Your task to perform on an android device: Open Android settings Image 0: 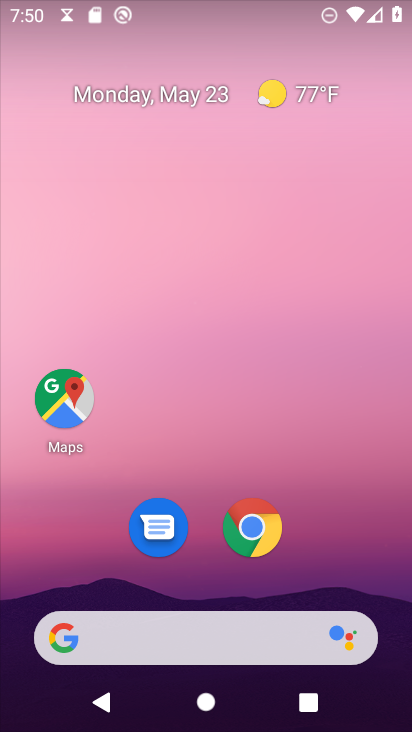
Step 0: drag from (280, 665) to (330, 236)
Your task to perform on an android device: Open Android settings Image 1: 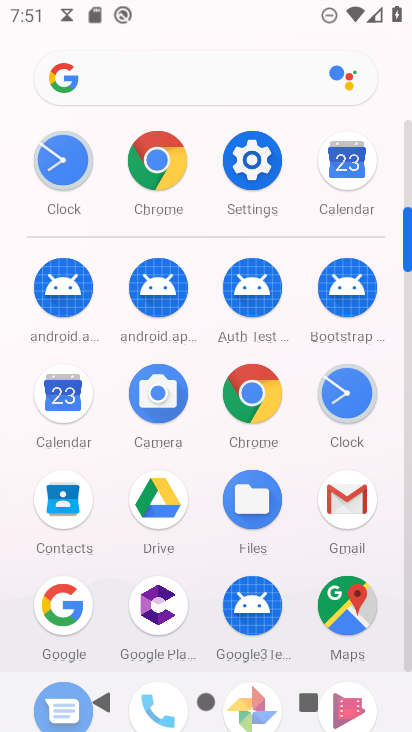
Step 1: click (259, 184)
Your task to perform on an android device: Open Android settings Image 2: 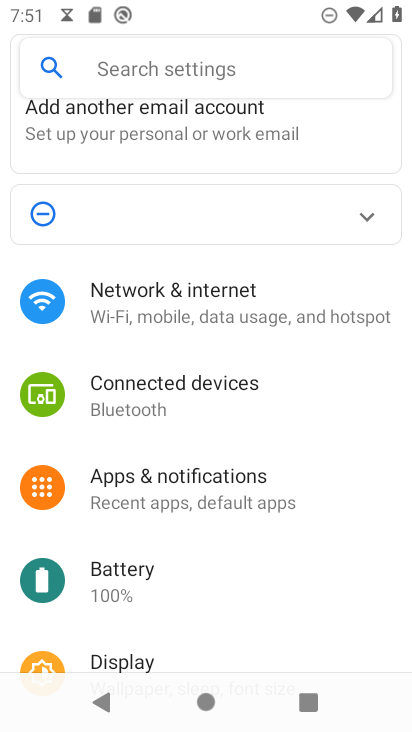
Step 2: click (160, 77)
Your task to perform on an android device: Open Android settings Image 3: 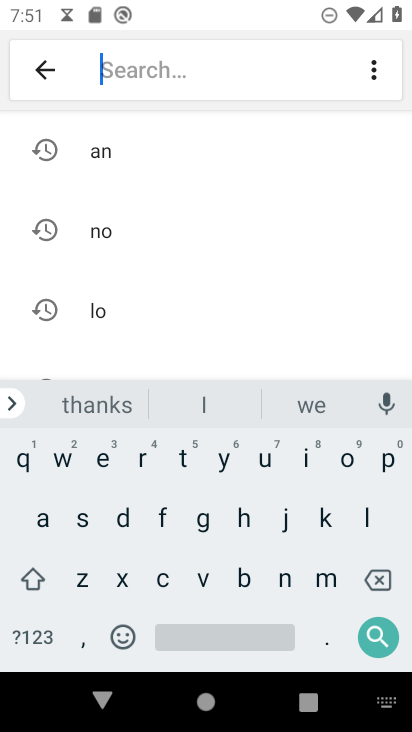
Step 3: click (35, 511)
Your task to perform on an android device: Open Android settings Image 4: 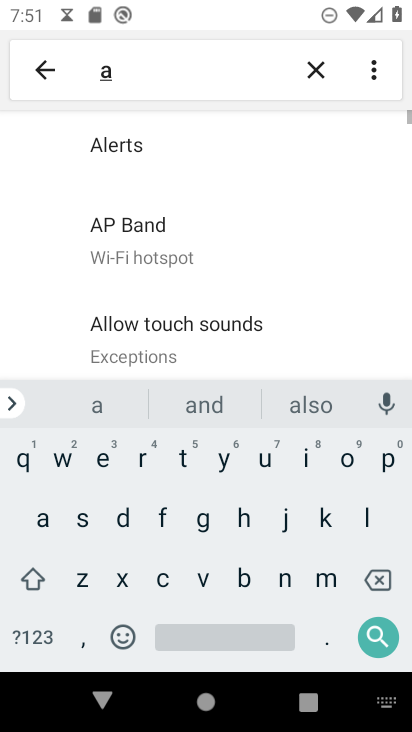
Step 4: click (284, 577)
Your task to perform on an android device: Open Android settings Image 5: 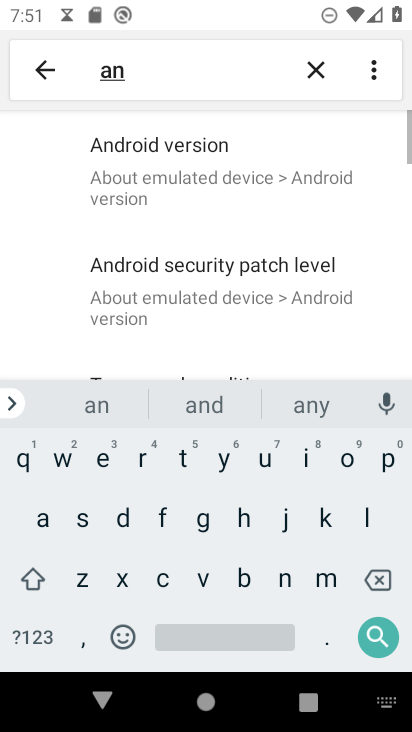
Step 5: click (204, 146)
Your task to perform on an android device: Open Android settings Image 6: 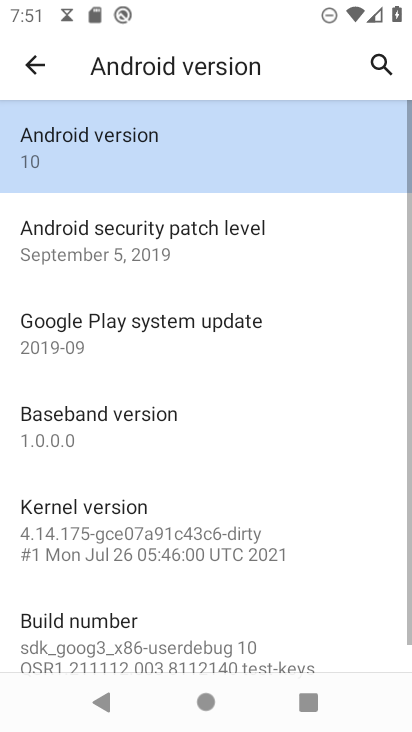
Step 6: task complete